Your task to perform on an android device: uninstall "Yahoo Mail" Image 0: 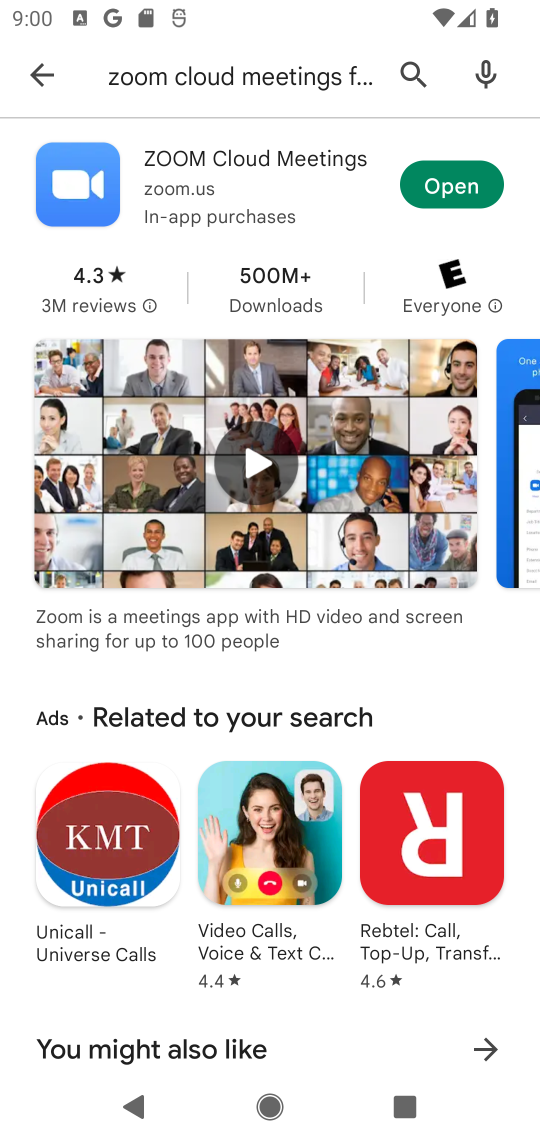
Step 0: press home button
Your task to perform on an android device: uninstall "Yahoo Mail" Image 1: 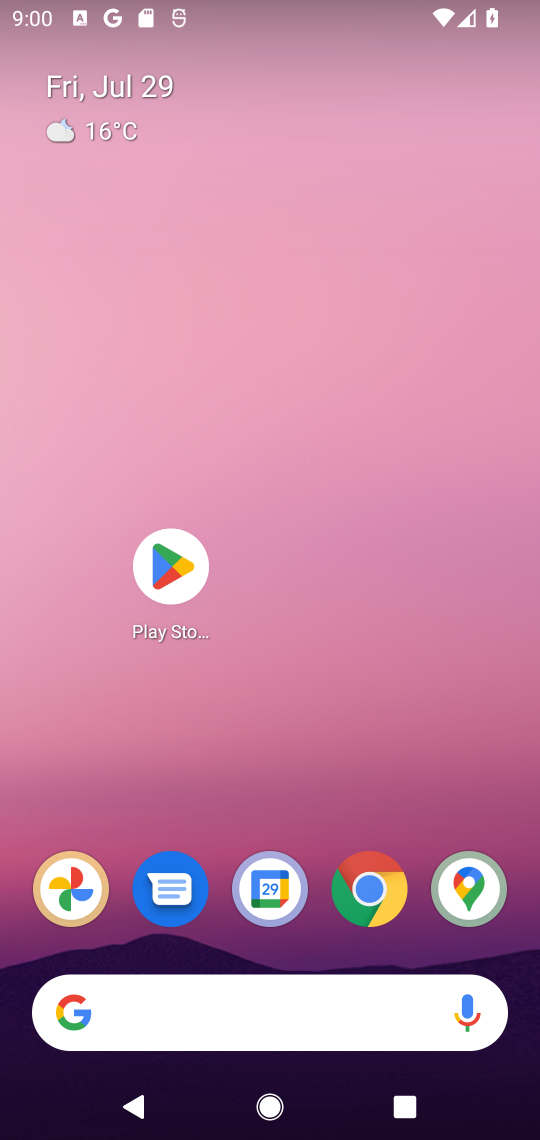
Step 1: click (180, 554)
Your task to perform on an android device: uninstall "Yahoo Mail" Image 2: 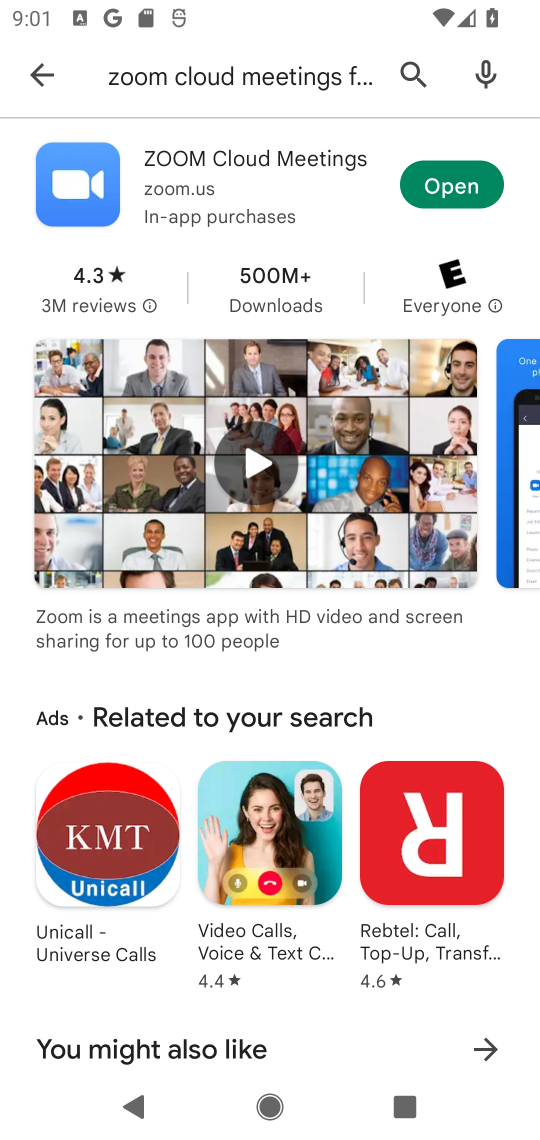
Step 2: click (407, 76)
Your task to perform on an android device: uninstall "Yahoo Mail" Image 3: 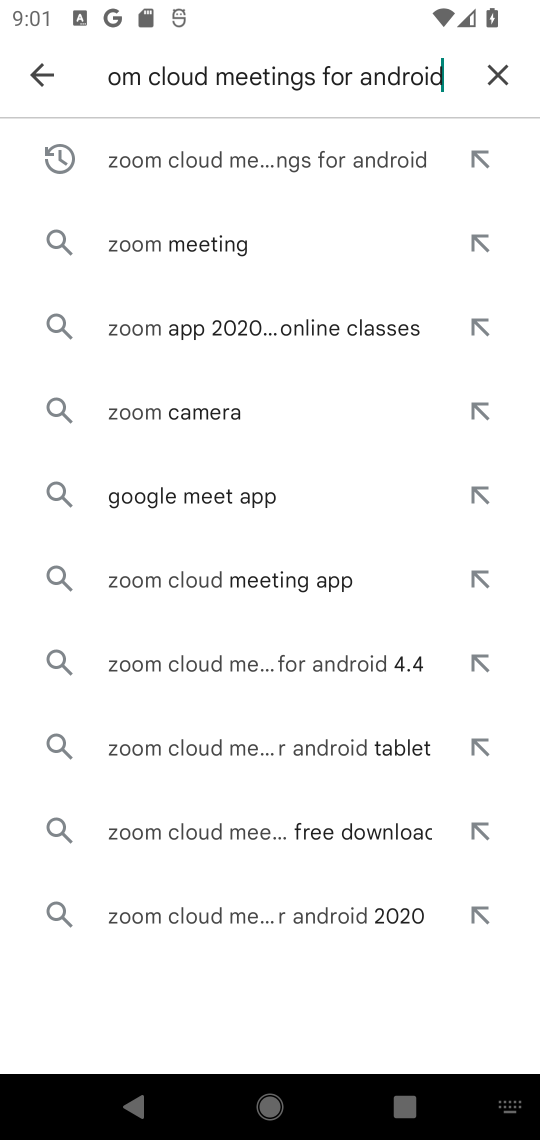
Step 3: click (490, 76)
Your task to perform on an android device: uninstall "Yahoo Mail" Image 4: 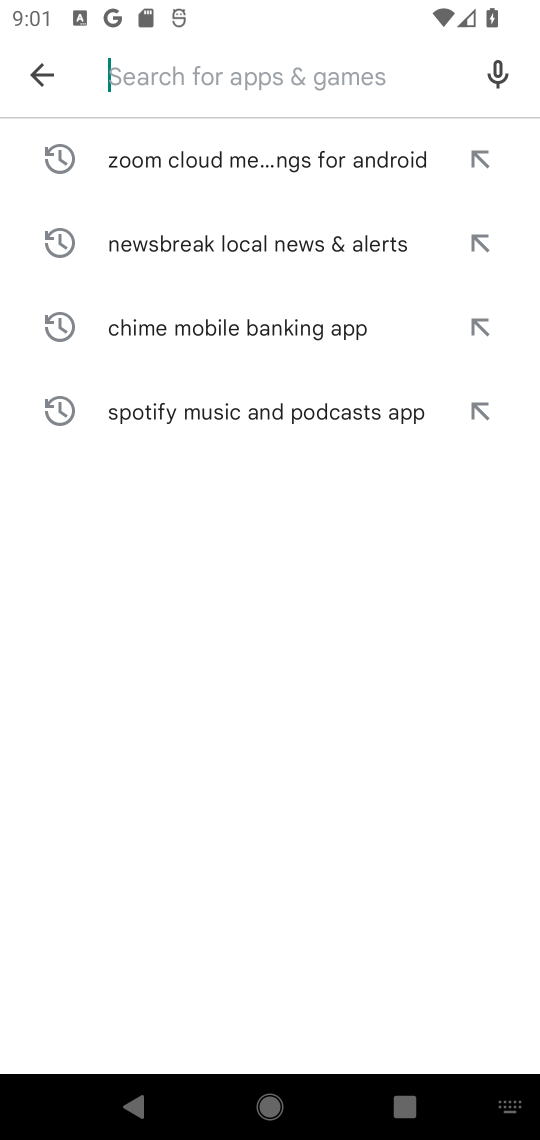
Step 4: type "Yahoo Mail"
Your task to perform on an android device: uninstall "Yahoo Mail" Image 5: 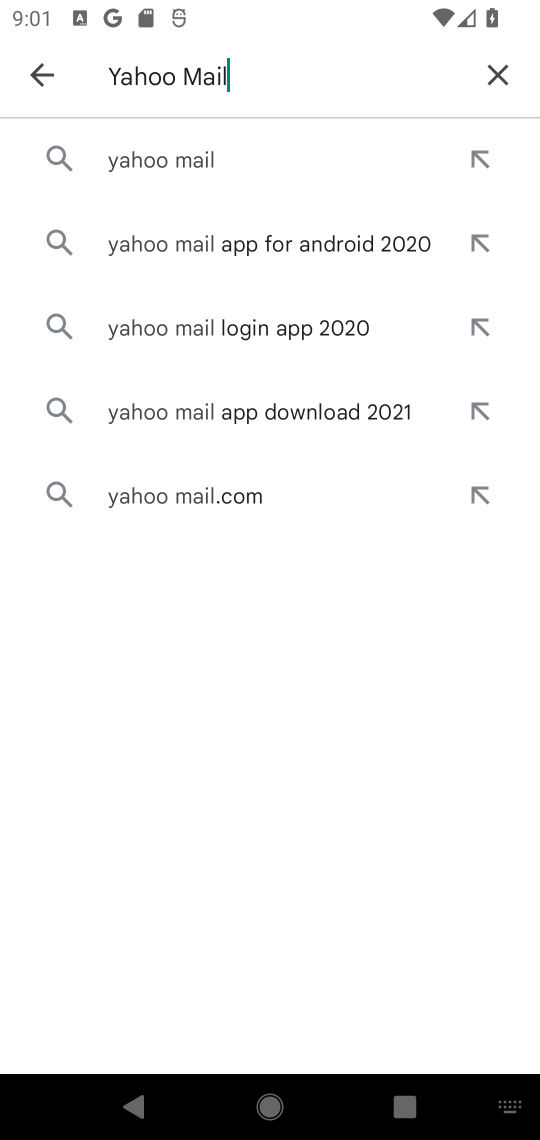
Step 5: click (197, 164)
Your task to perform on an android device: uninstall "Yahoo Mail" Image 6: 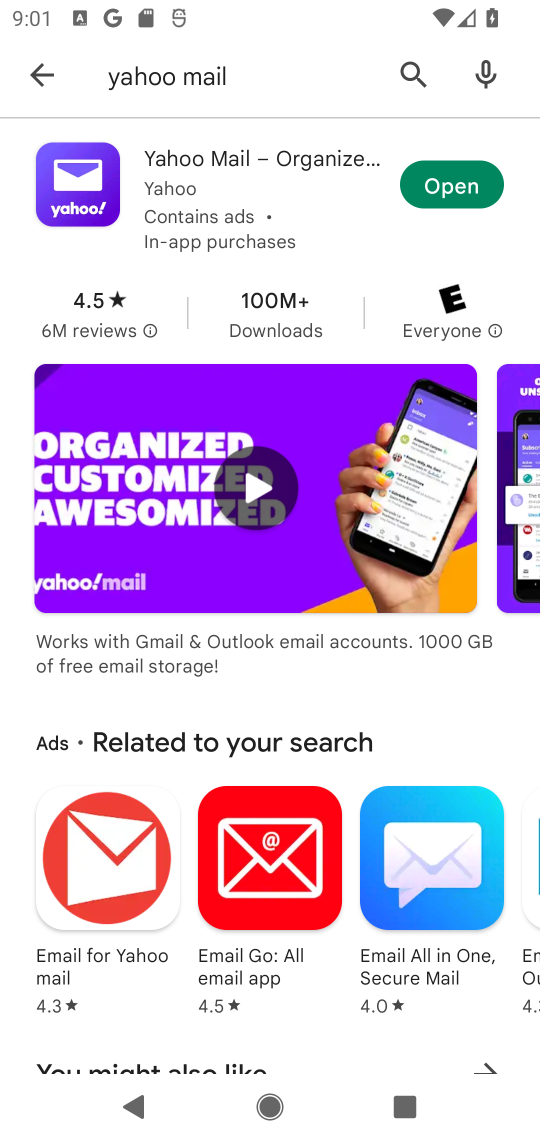
Step 6: click (102, 194)
Your task to perform on an android device: uninstall "Yahoo Mail" Image 7: 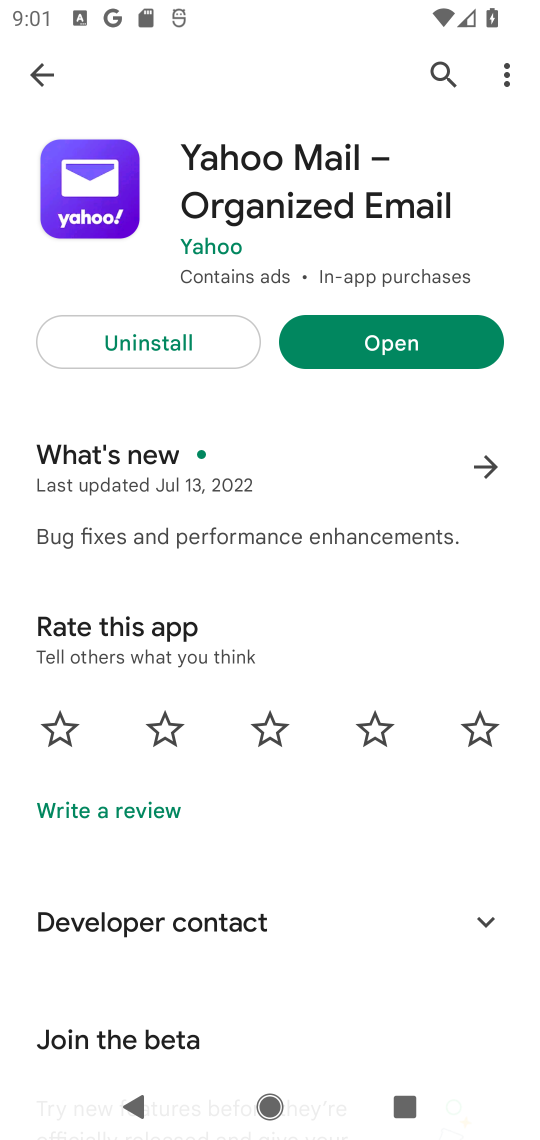
Step 7: click (187, 338)
Your task to perform on an android device: uninstall "Yahoo Mail" Image 8: 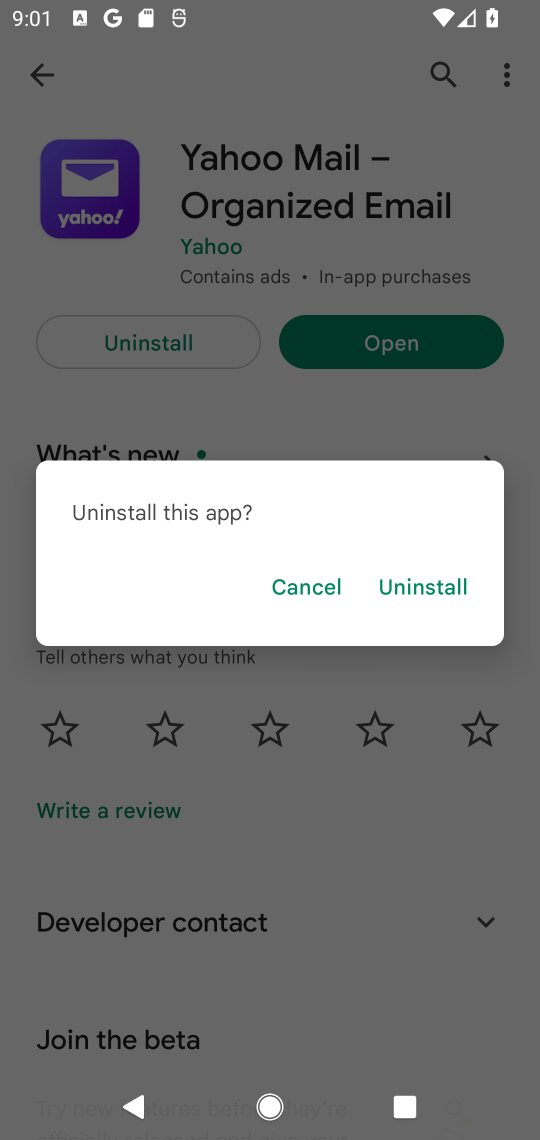
Step 8: click (393, 586)
Your task to perform on an android device: uninstall "Yahoo Mail" Image 9: 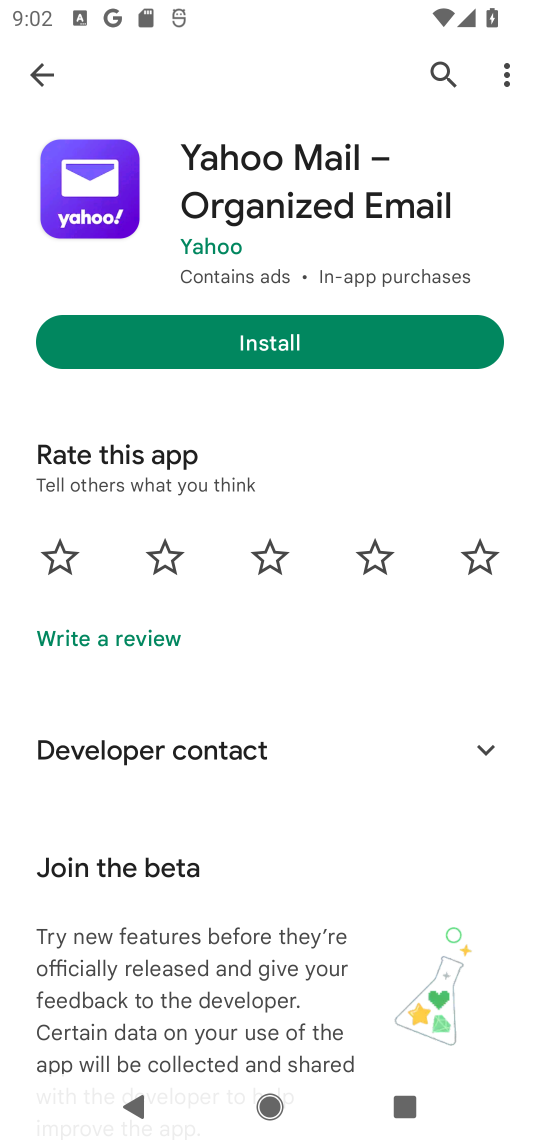
Step 9: task complete